Your task to perform on an android device: How do I get to the nearest T-Mobile Store? Image 0: 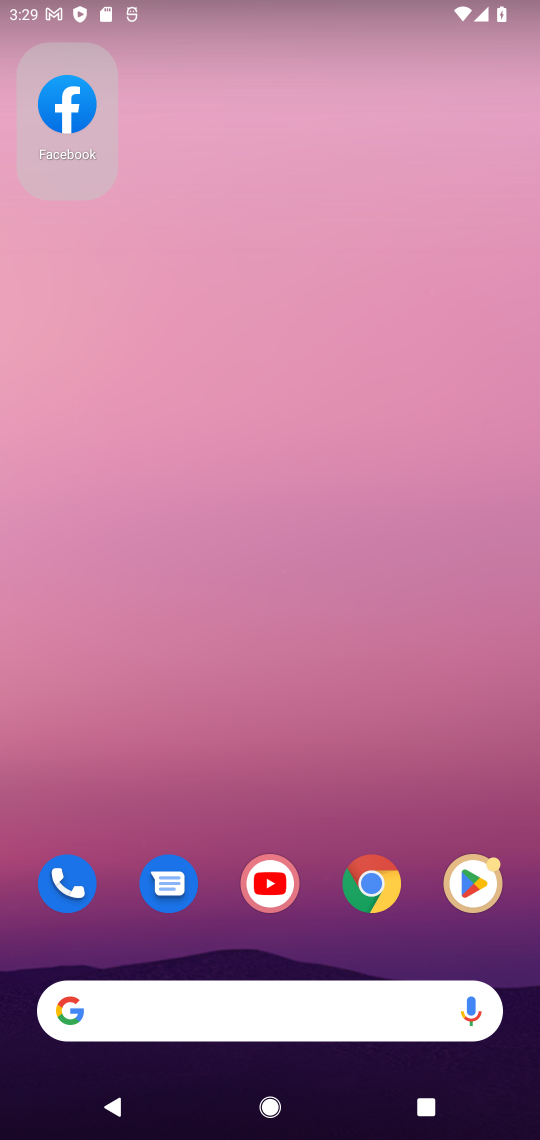
Step 0: click (375, 881)
Your task to perform on an android device: How do I get to the nearest T-Mobile Store? Image 1: 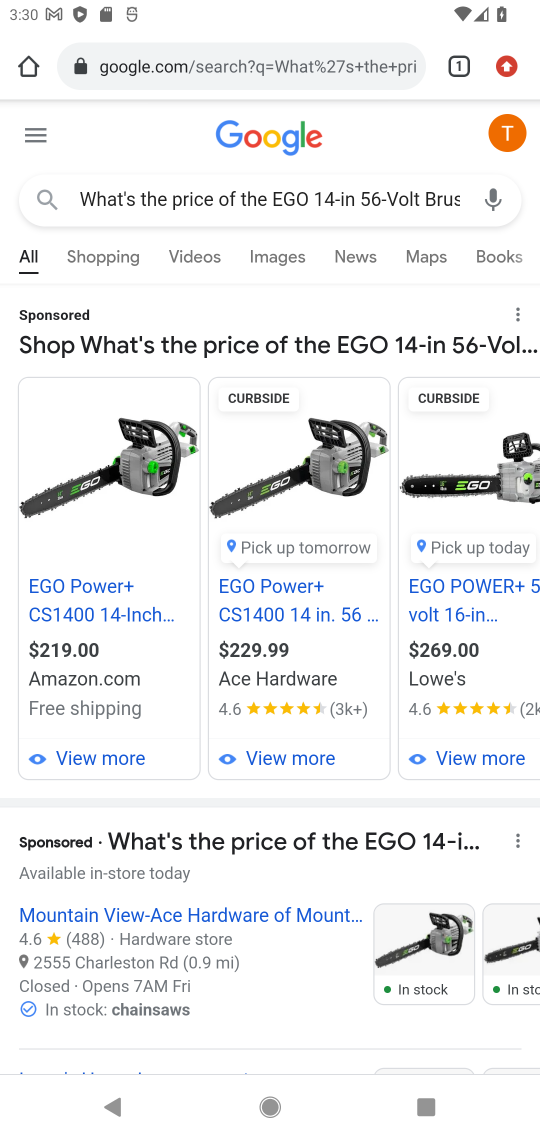
Step 1: click (274, 189)
Your task to perform on an android device: How do I get to the nearest T-Mobile Store? Image 2: 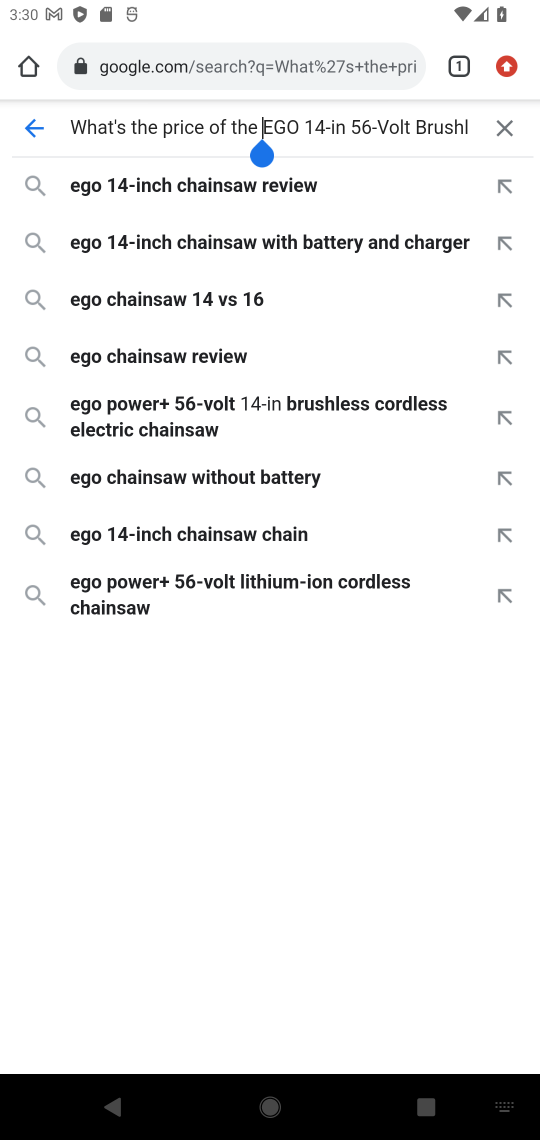
Step 2: click (518, 121)
Your task to perform on an android device: How do I get to the nearest T-Mobile Store? Image 3: 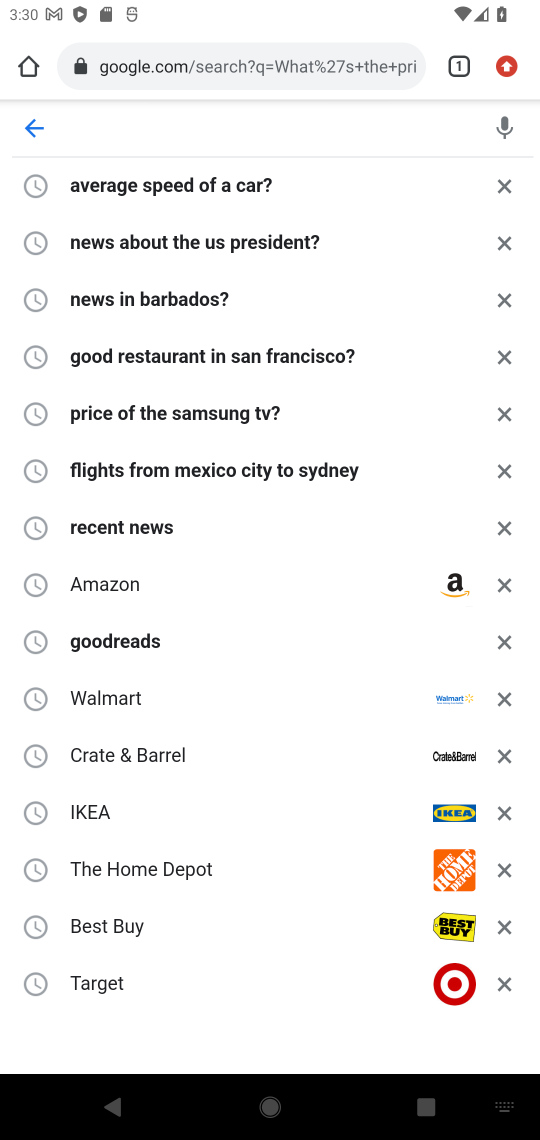
Step 3: drag from (241, 1106) to (503, 1138)
Your task to perform on an android device: How do I get to the nearest T-Mobile Store? Image 4: 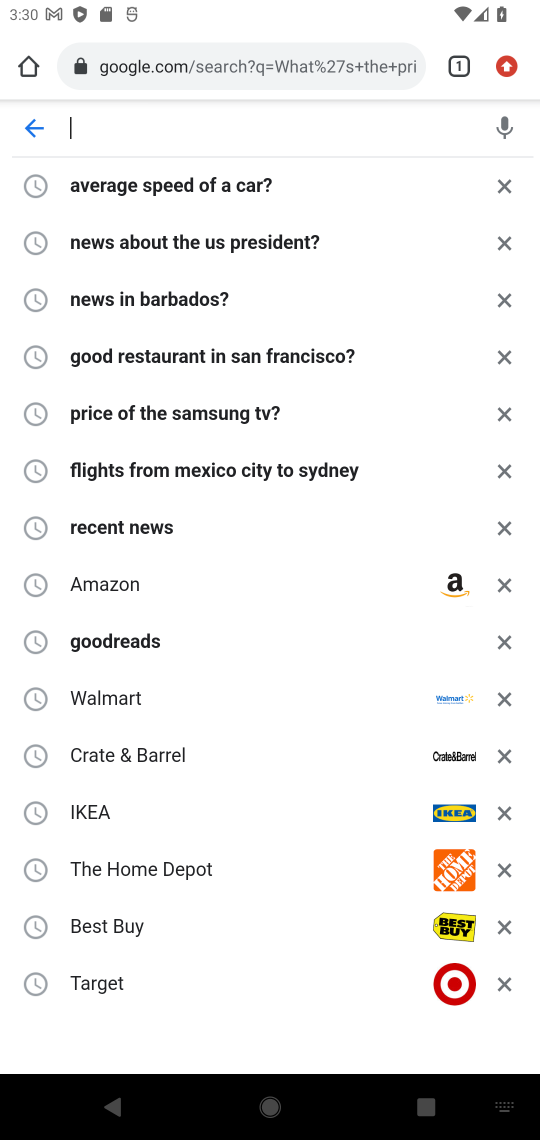
Step 4: type "How do I get to the nearest T-Mobile Store?"
Your task to perform on an android device: How do I get to the nearest T-Mobile Store? Image 5: 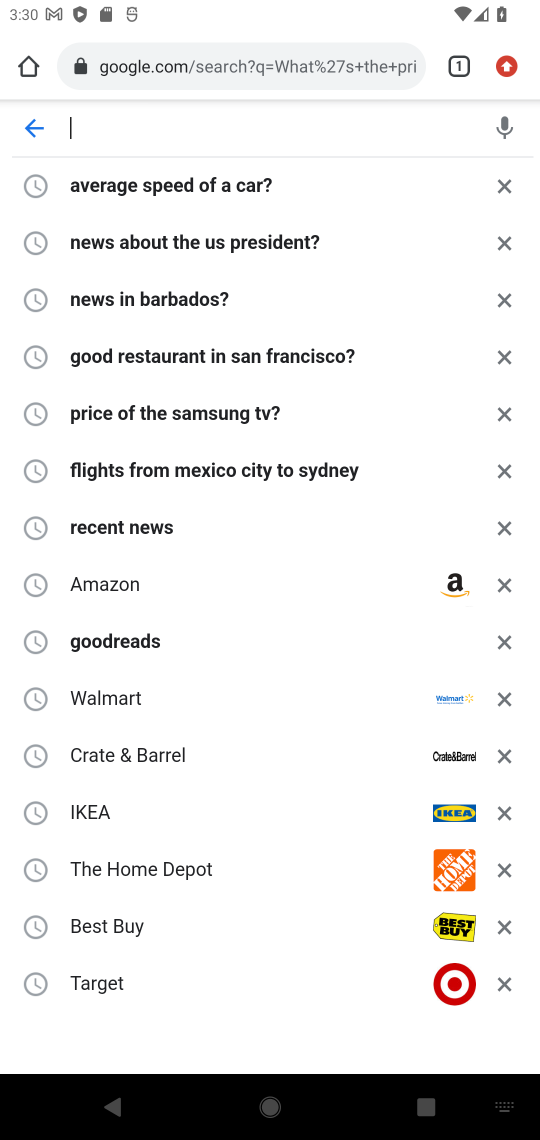
Step 5: drag from (503, 1138) to (519, 564)
Your task to perform on an android device: How do I get to the nearest T-Mobile Store? Image 6: 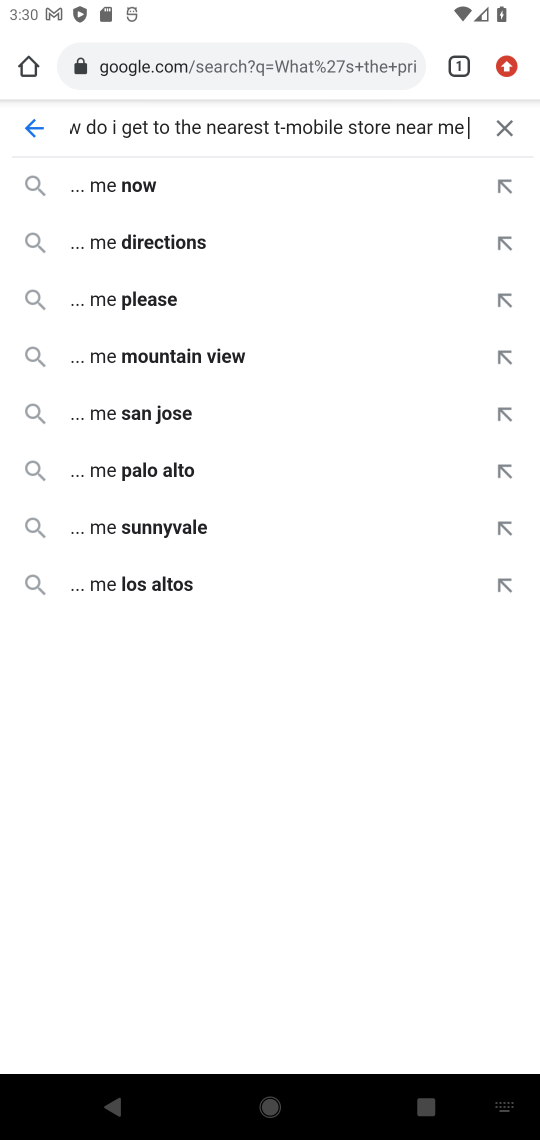
Step 6: press enter
Your task to perform on an android device: How do I get to the nearest T-Mobile Store? Image 7: 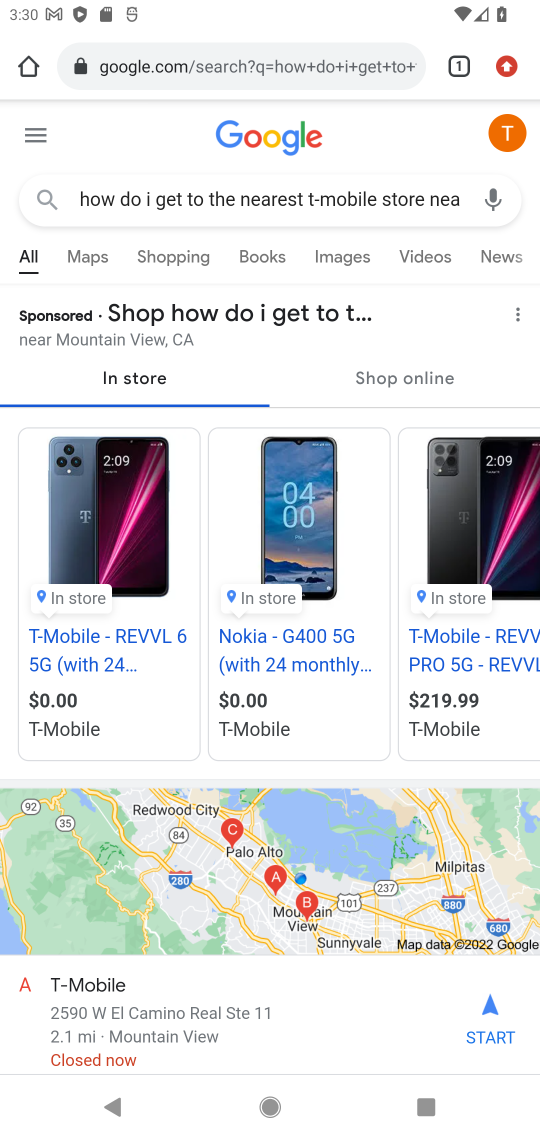
Step 7: task complete